Your task to perform on an android device: toggle pop-ups in chrome Image 0: 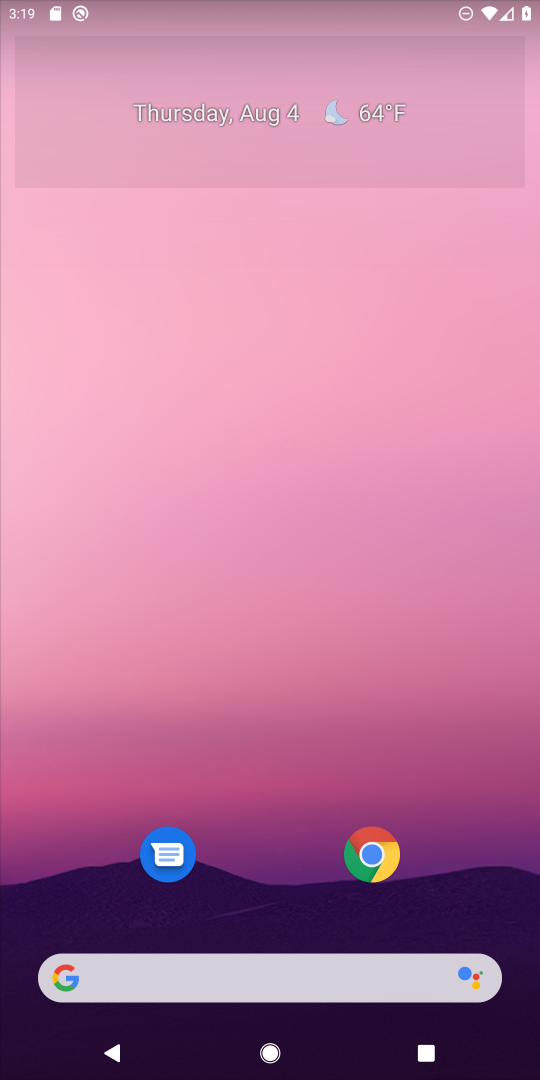
Step 0: click (378, 870)
Your task to perform on an android device: toggle pop-ups in chrome Image 1: 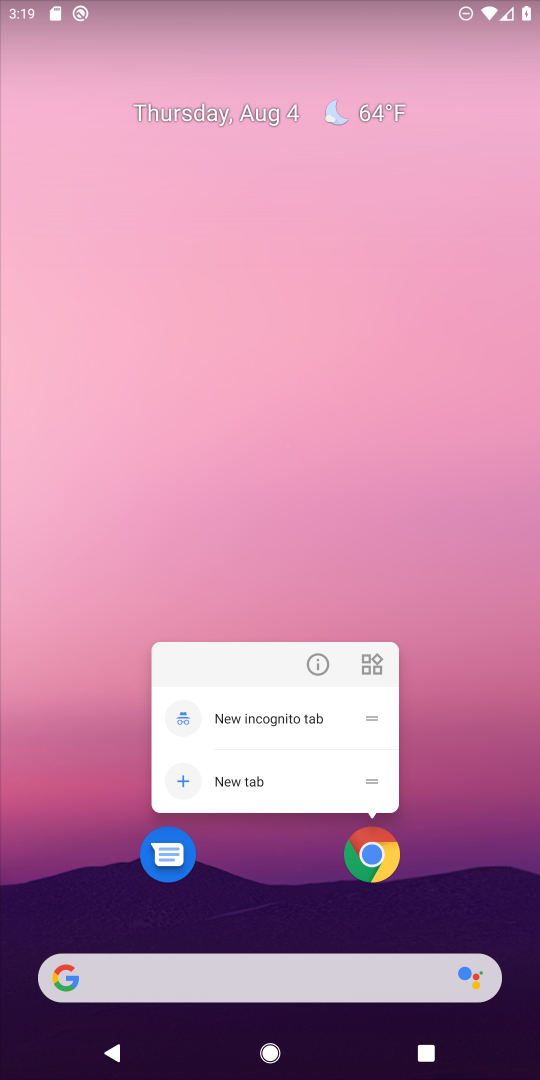
Step 1: click (381, 865)
Your task to perform on an android device: toggle pop-ups in chrome Image 2: 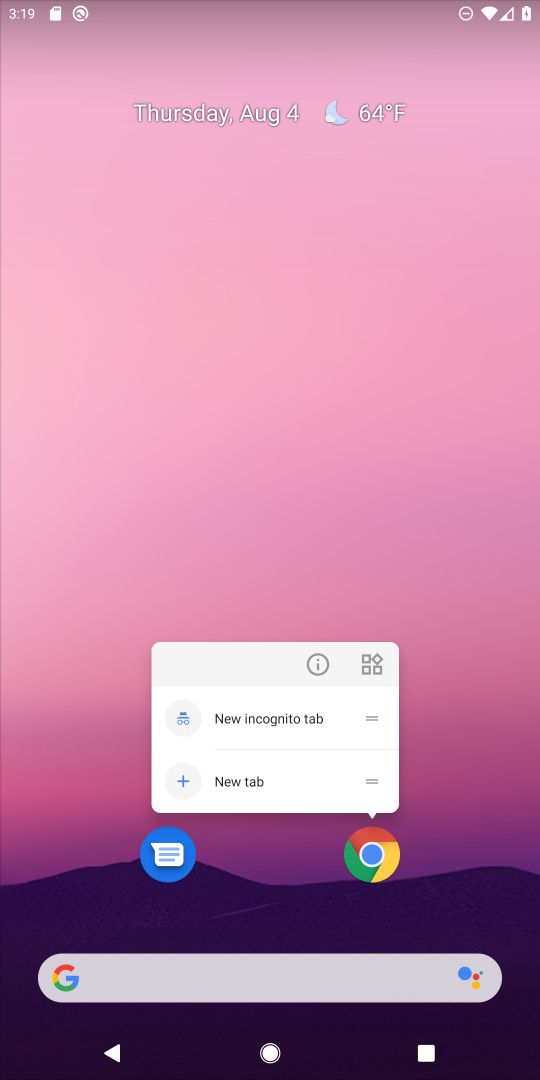
Step 2: click (381, 865)
Your task to perform on an android device: toggle pop-ups in chrome Image 3: 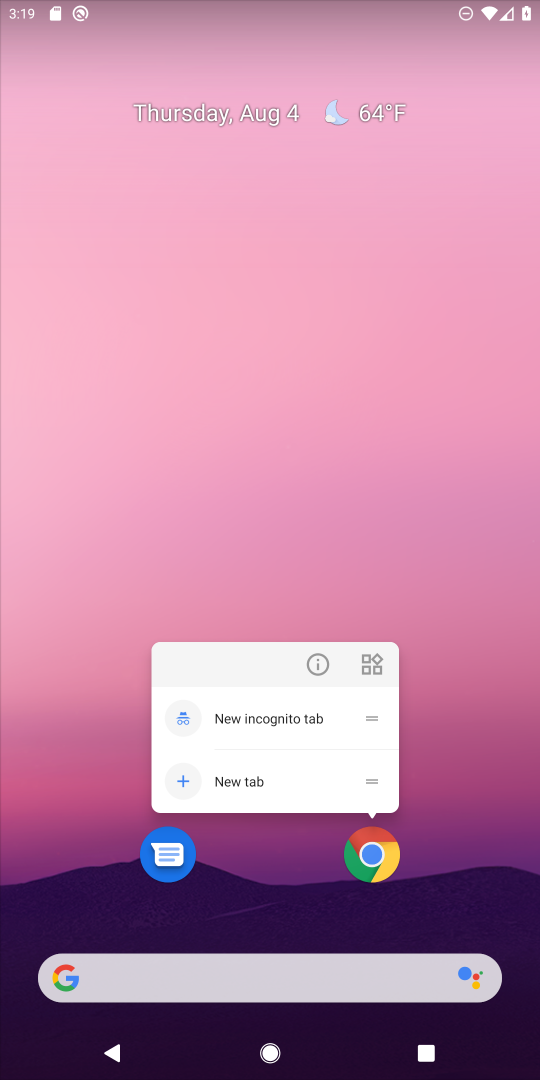
Step 3: click (358, 856)
Your task to perform on an android device: toggle pop-ups in chrome Image 4: 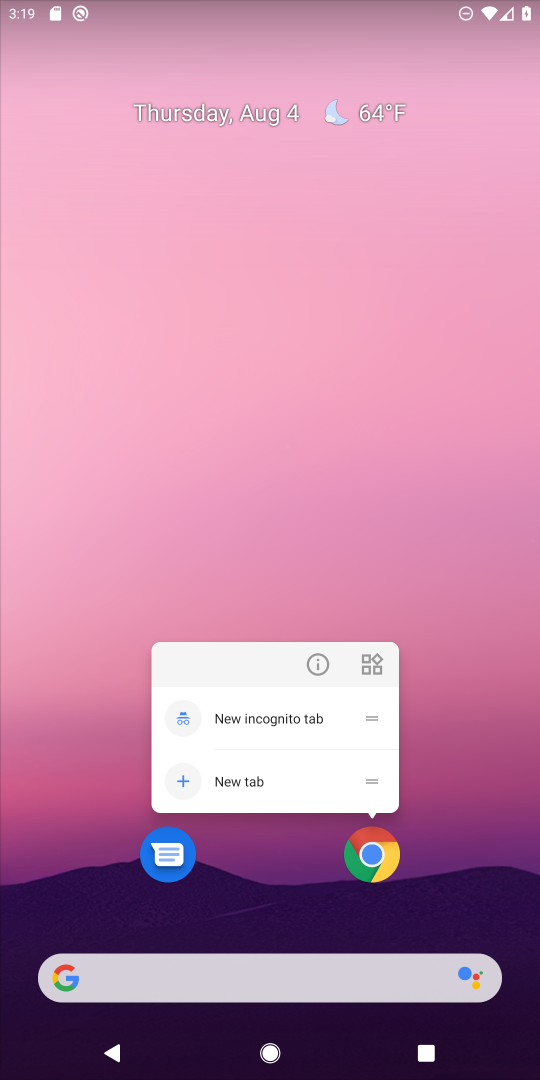
Step 4: click (358, 856)
Your task to perform on an android device: toggle pop-ups in chrome Image 5: 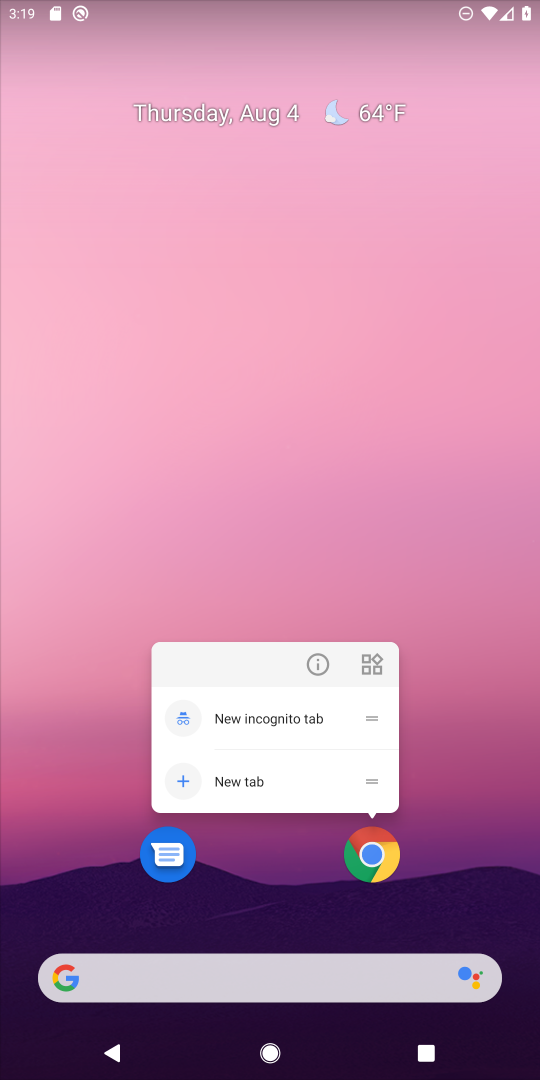
Step 5: click (215, 840)
Your task to perform on an android device: toggle pop-ups in chrome Image 6: 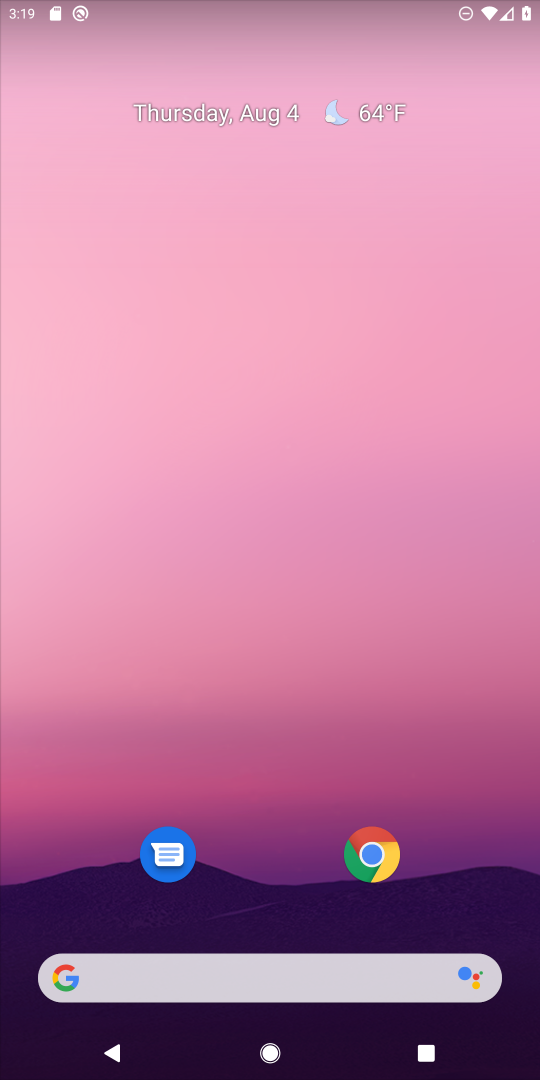
Step 6: drag from (267, 872) to (208, 202)
Your task to perform on an android device: toggle pop-ups in chrome Image 7: 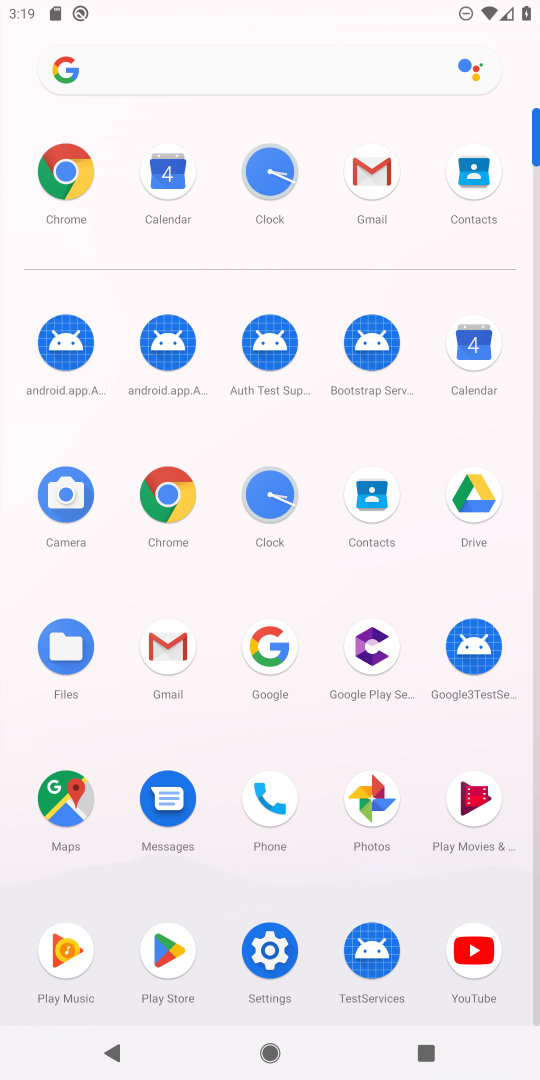
Step 7: click (165, 481)
Your task to perform on an android device: toggle pop-ups in chrome Image 8: 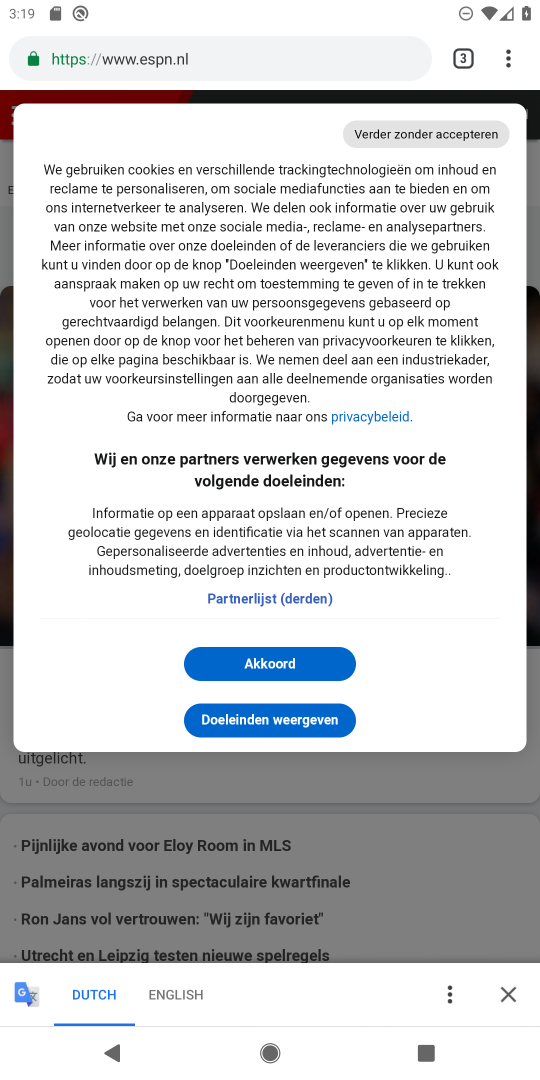
Step 8: click (467, 59)
Your task to perform on an android device: toggle pop-ups in chrome Image 9: 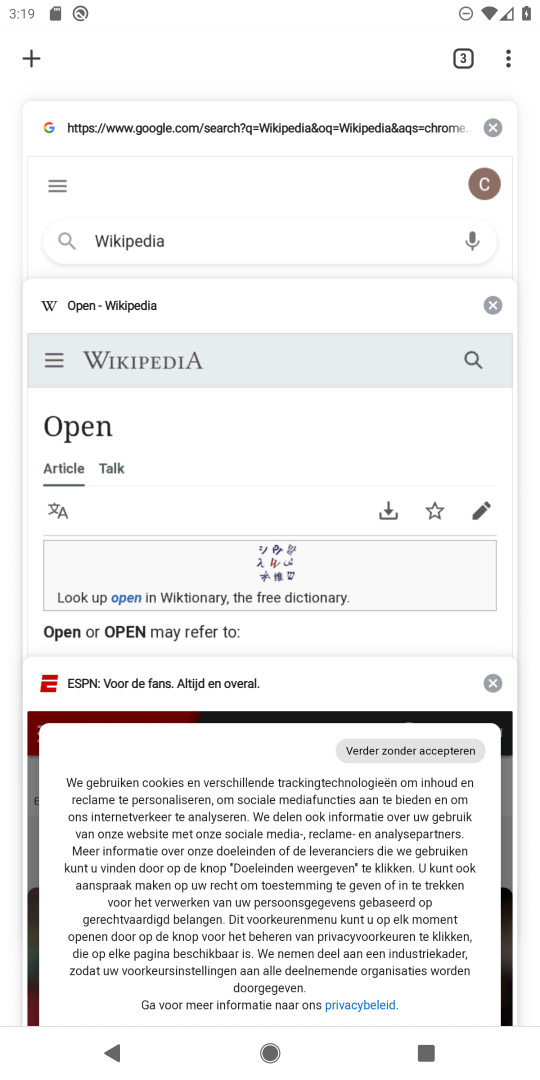
Step 9: task complete